Your task to perform on an android device: read, delete, or share a saved page in the chrome app Image 0: 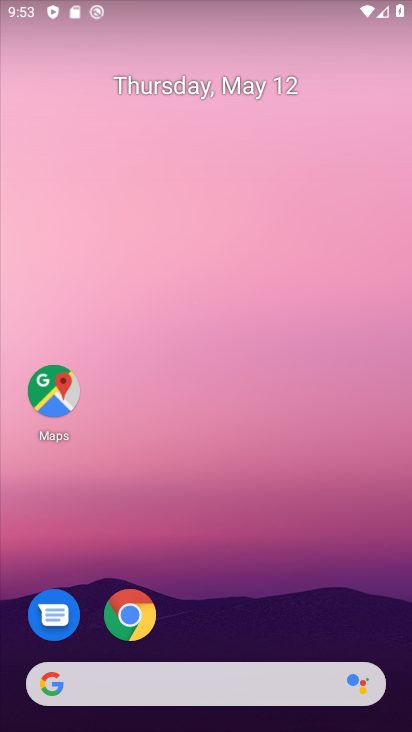
Step 0: click (130, 611)
Your task to perform on an android device: read, delete, or share a saved page in the chrome app Image 1: 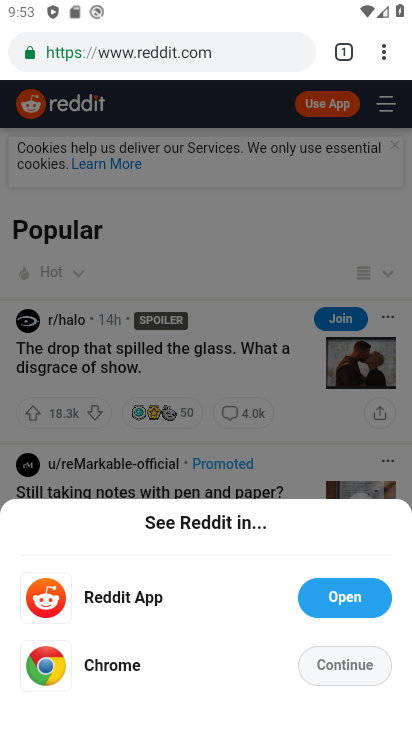
Step 1: click (384, 58)
Your task to perform on an android device: read, delete, or share a saved page in the chrome app Image 2: 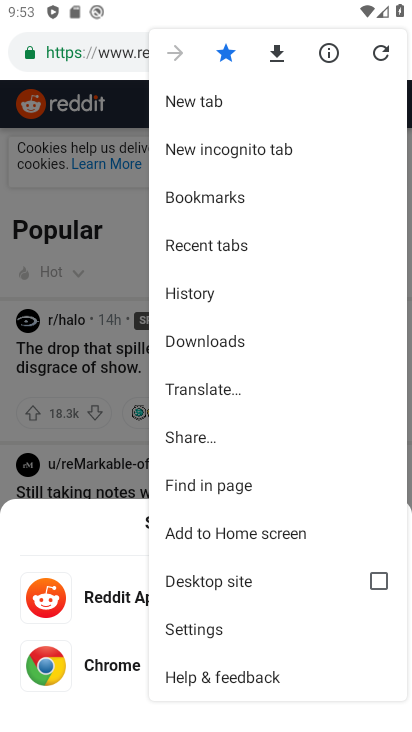
Step 2: click (202, 341)
Your task to perform on an android device: read, delete, or share a saved page in the chrome app Image 3: 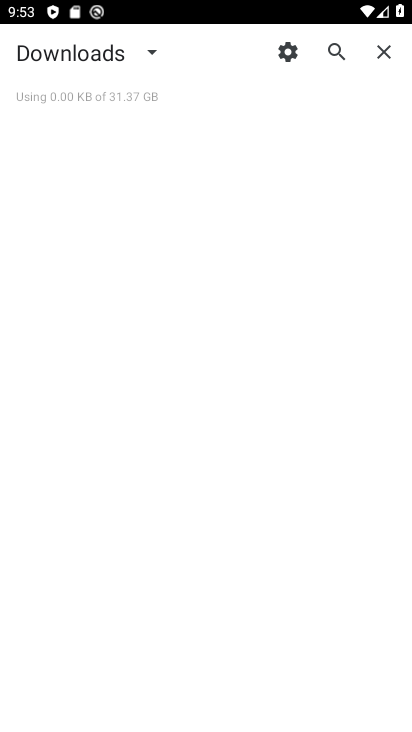
Step 3: click (153, 49)
Your task to perform on an android device: read, delete, or share a saved page in the chrome app Image 4: 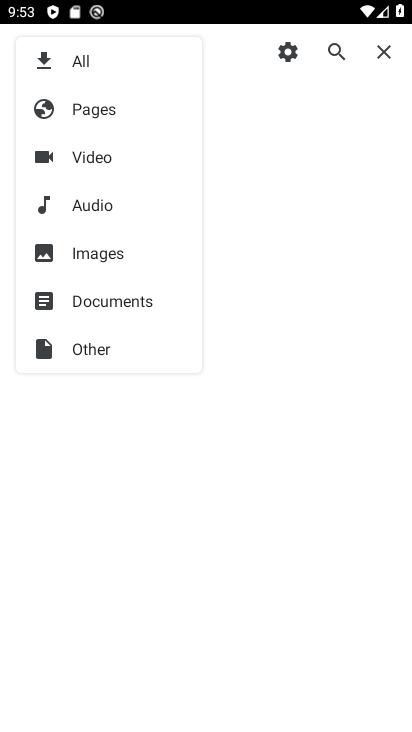
Step 4: click (95, 108)
Your task to perform on an android device: read, delete, or share a saved page in the chrome app Image 5: 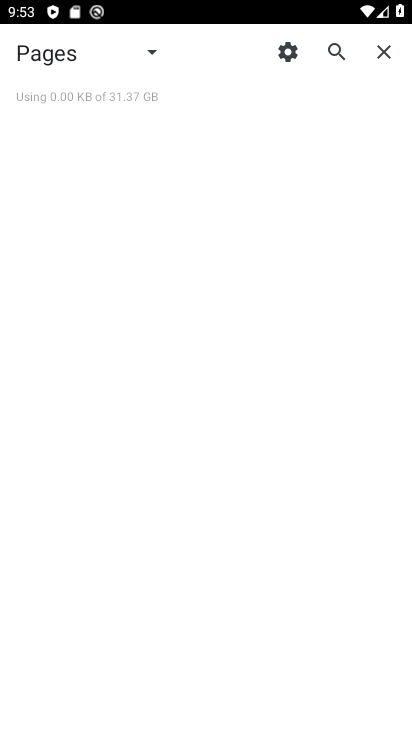
Step 5: task complete